Your task to perform on an android device: Search for Mexican restaurants on Maps Image 0: 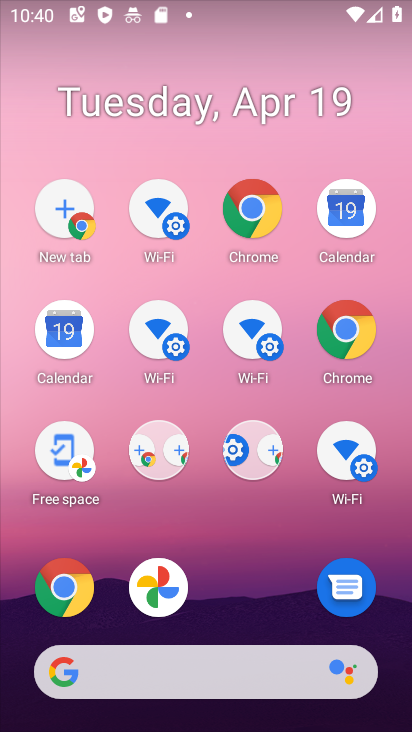
Step 0: click (131, 107)
Your task to perform on an android device: Search for Mexican restaurants on Maps Image 1: 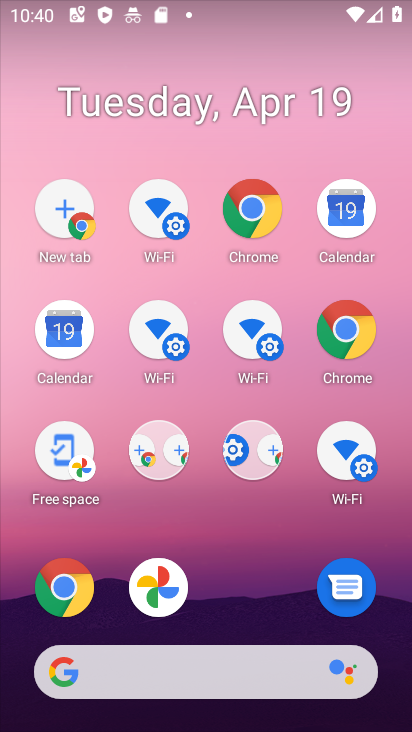
Step 1: drag from (184, 386) to (141, 102)
Your task to perform on an android device: Search for Mexican restaurants on Maps Image 2: 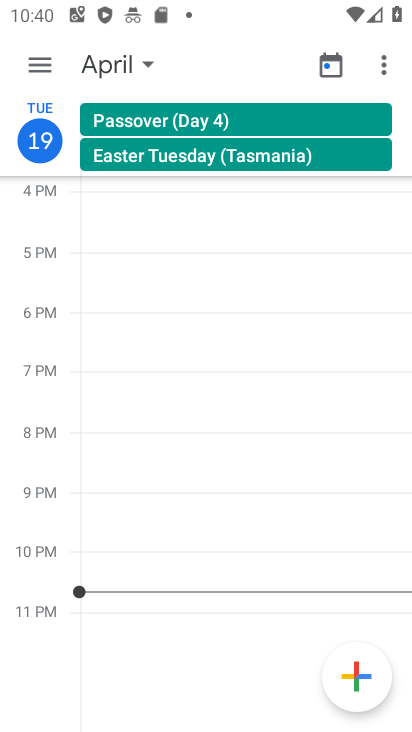
Step 2: press home button
Your task to perform on an android device: Search for Mexican restaurants on Maps Image 3: 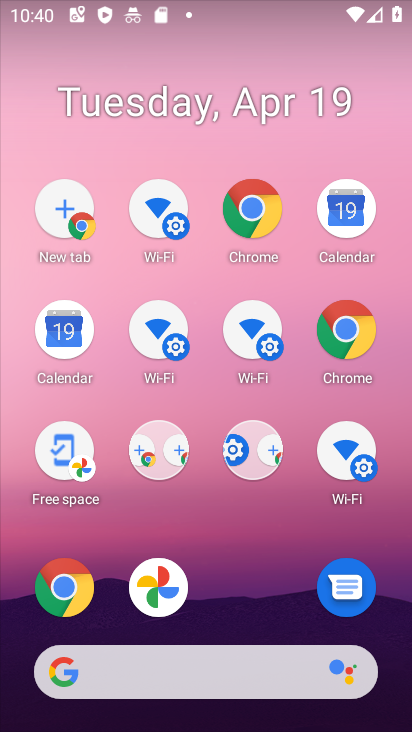
Step 3: drag from (254, 588) to (97, 56)
Your task to perform on an android device: Search for Mexican restaurants on Maps Image 4: 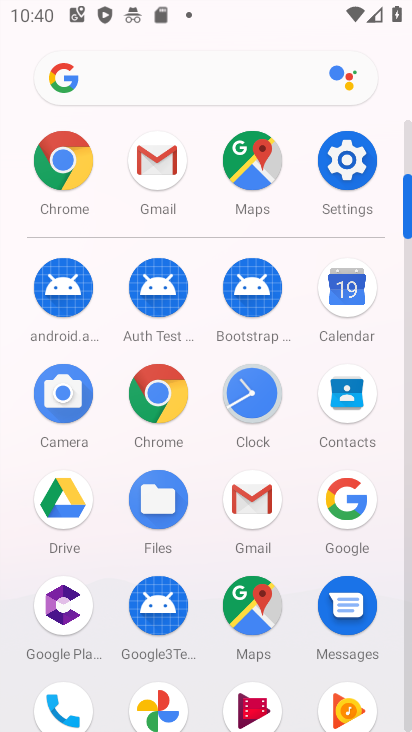
Step 4: click (258, 161)
Your task to perform on an android device: Search for Mexican restaurants on Maps Image 5: 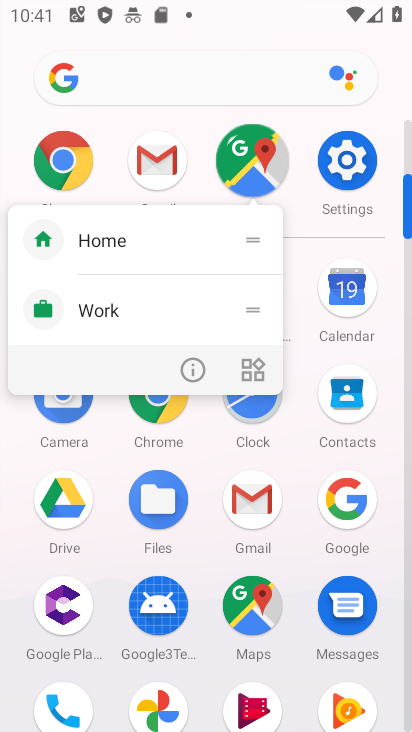
Step 5: click (259, 162)
Your task to perform on an android device: Search for Mexican restaurants on Maps Image 6: 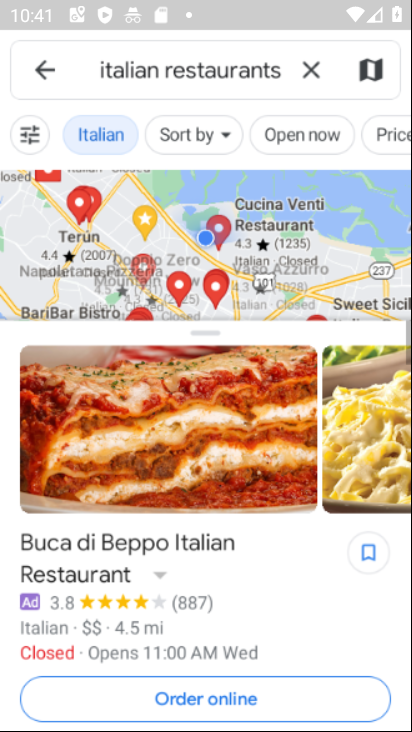
Step 6: click (259, 162)
Your task to perform on an android device: Search for Mexican restaurants on Maps Image 7: 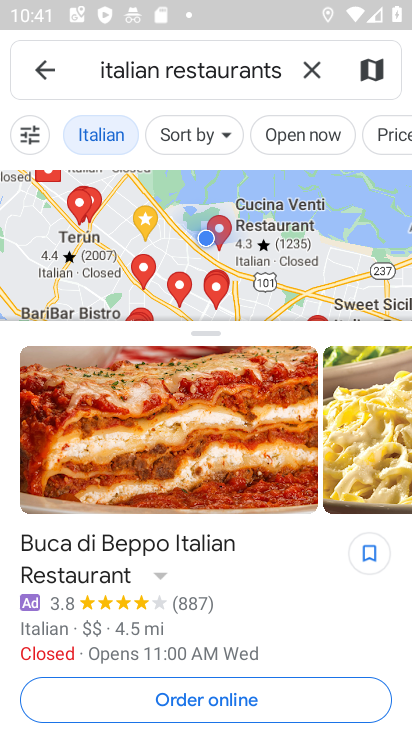
Step 7: click (304, 66)
Your task to perform on an android device: Search for Mexican restaurants on Maps Image 8: 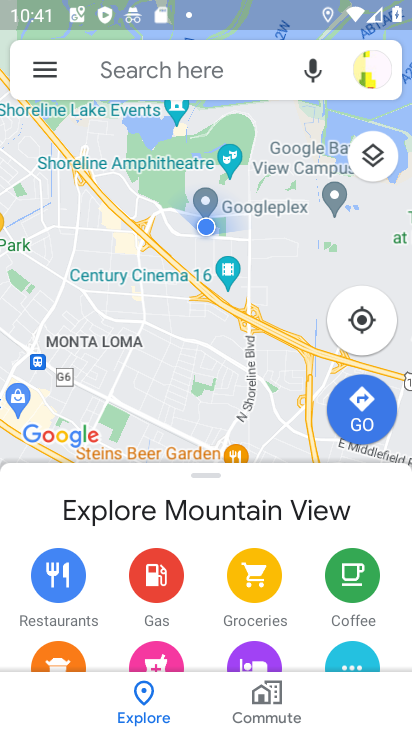
Step 8: type "mexican restaurants"
Your task to perform on an android device: Search for Mexican restaurants on Maps Image 9: 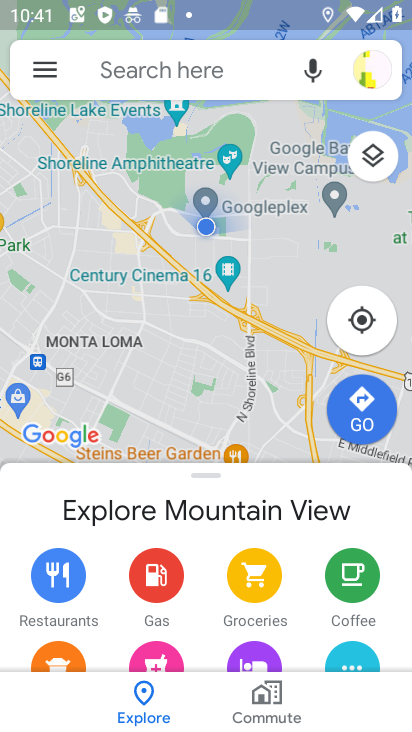
Step 9: click (106, 64)
Your task to perform on an android device: Search for Mexican restaurants on Maps Image 10: 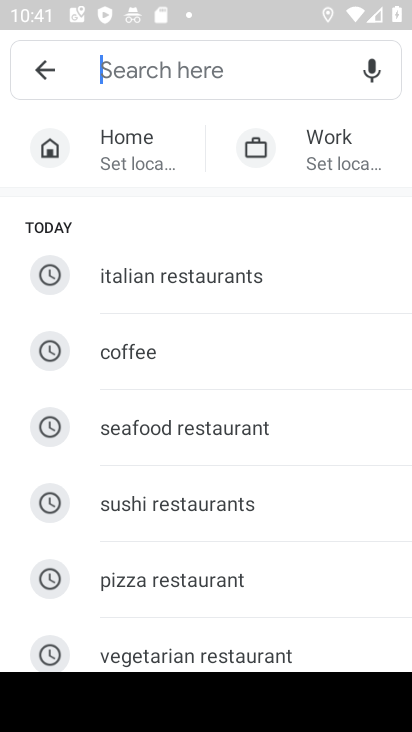
Step 10: click (106, 79)
Your task to perform on an android device: Search for Mexican restaurants on Maps Image 11: 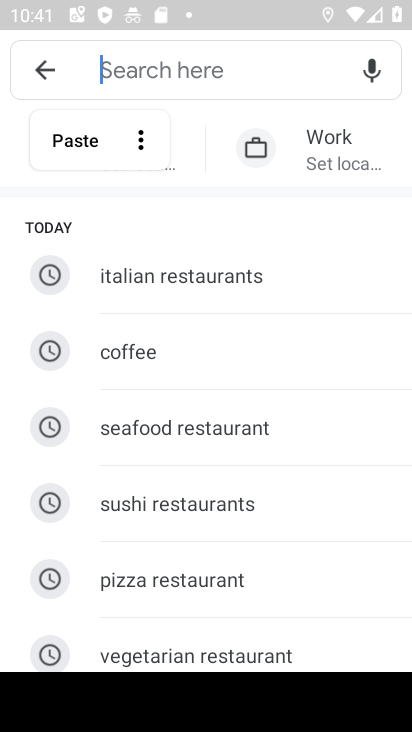
Step 11: type "mexican rstaurants"
Your task to perform on an android device: Search for Mexican restaurants on Maps Image 12: 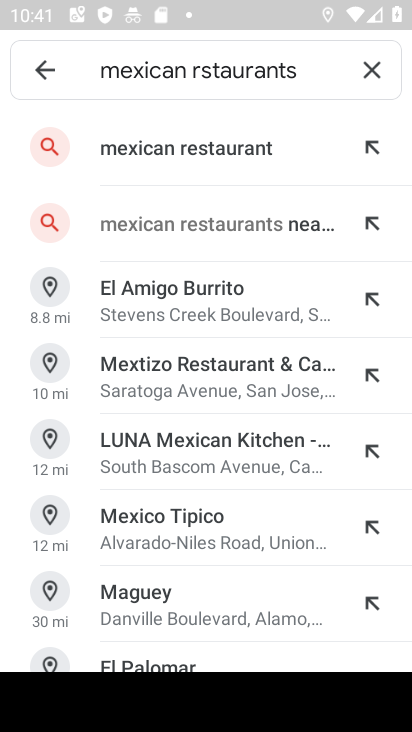
Step 12: click (182, 160)
Your task to perform on an android device: Search for Mexican restaurants on Maps Image 13: 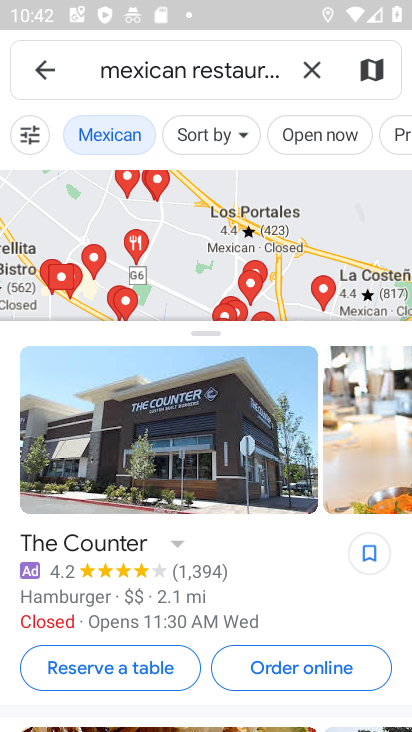
Step 13: task complete